Your task to perform on an android device: Open sound settings Image 0: 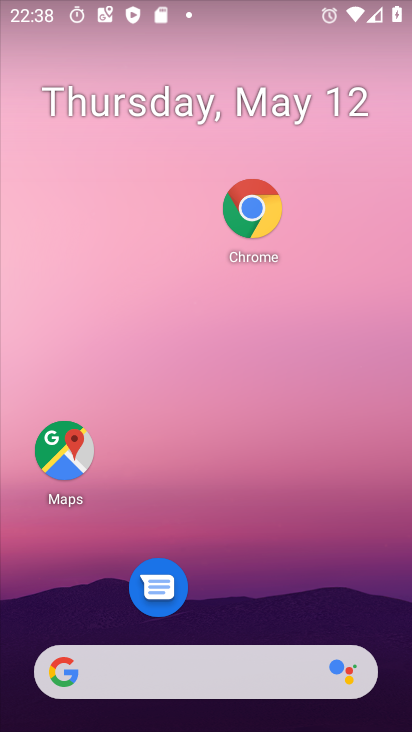
Step 0: drag from (259, 569) to (275, 253)
Your task to perform on an android device: Open sound settings Image 1: 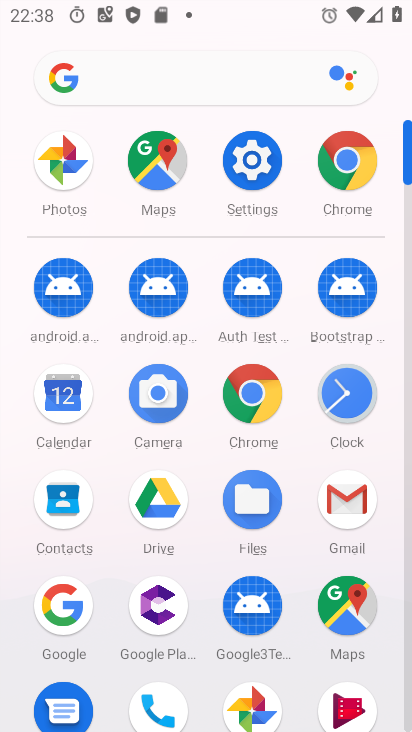
Step 1: click (241, 159)
Your task to perform on an android device: Open sound settings Image 2: 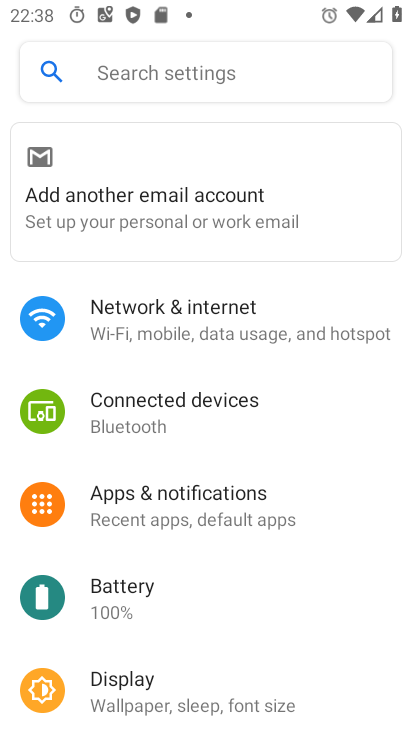
Step 2: drag from (219, 606) to (244, 305)
Your task to perform on an android device: Open sound settings Image 3: 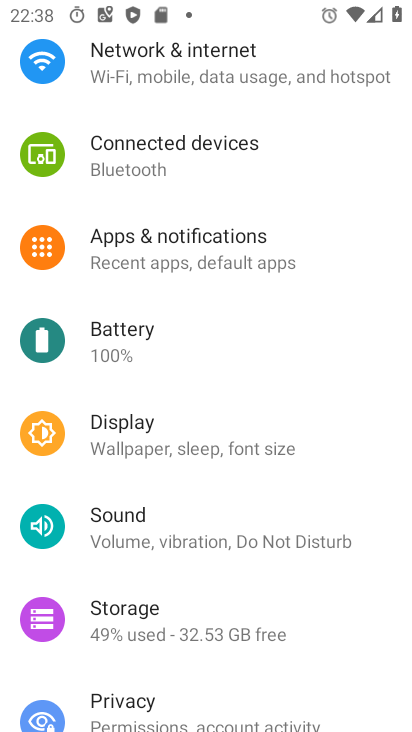
Step 3: drag from (227, 574) to (211, 229)
Your task to perform on an android device: Open sound settings Image 4: 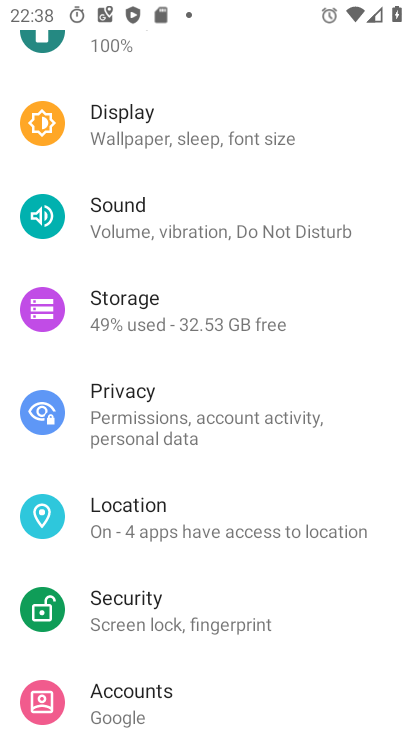
Step 4: click (175, 199)
Your task to perform on an android device: Open sound settings Image 5: 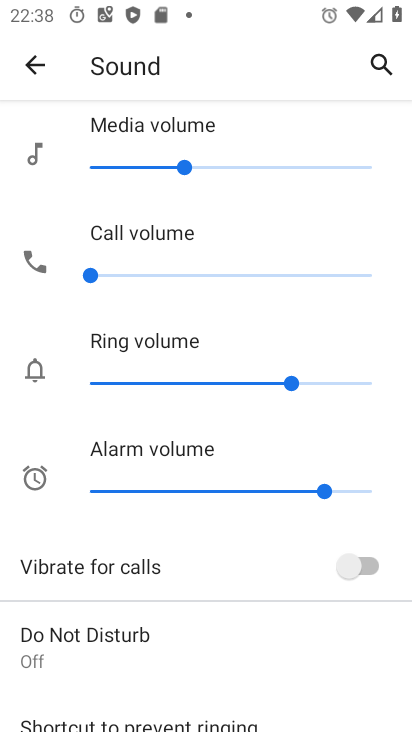
Step 5: task complete